Your task to perform on an android device: Open Chrome and go to the settings page Image 0: 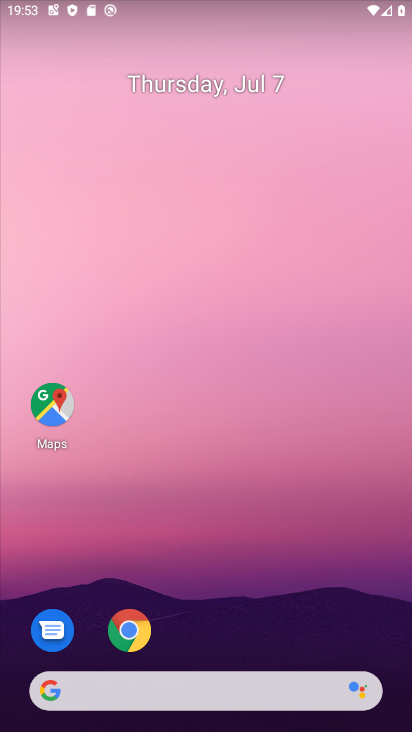
Step 0: drag from (218, 633) to (217, 72)
Your task to perform on an android device: Open Chrome and go to the settings page Image 1: 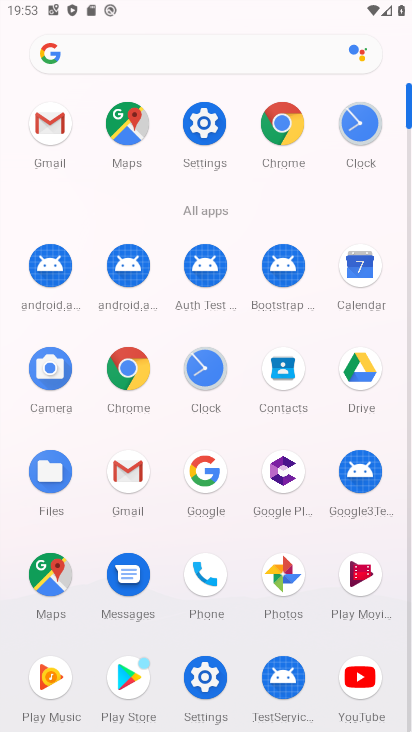
Step 1: click (277, 114)
Your task to perform on an android device: Open Chrome and go to the settings page Image 2: 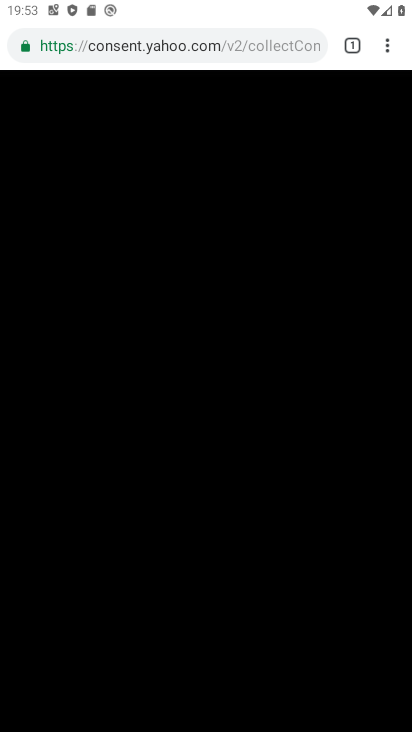
Step 2: click (394, 49)
Your task to perform on an android device: Open Chrome and go to the settings page Image 3: 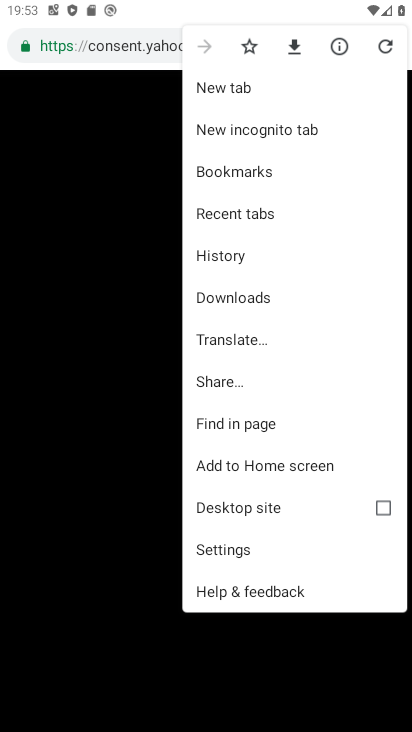
Step 3: click (260, 543)
Your task to perform on an android device: Open Chrome and go to the settings page Image 4: 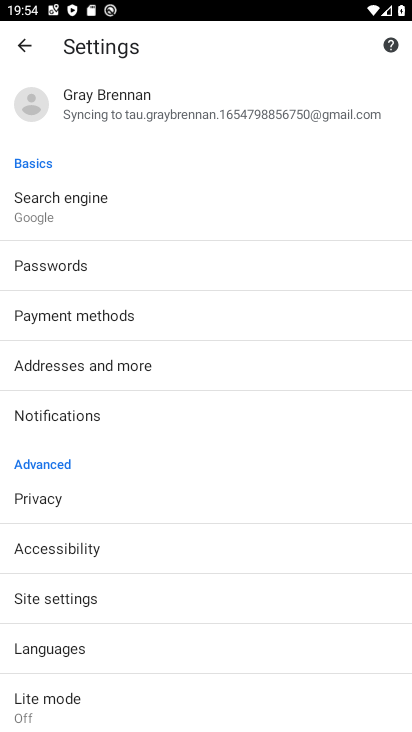
Step 4: task complete